Your task to perform on an android device: turn on showing notifications on the lock screen Image 0: 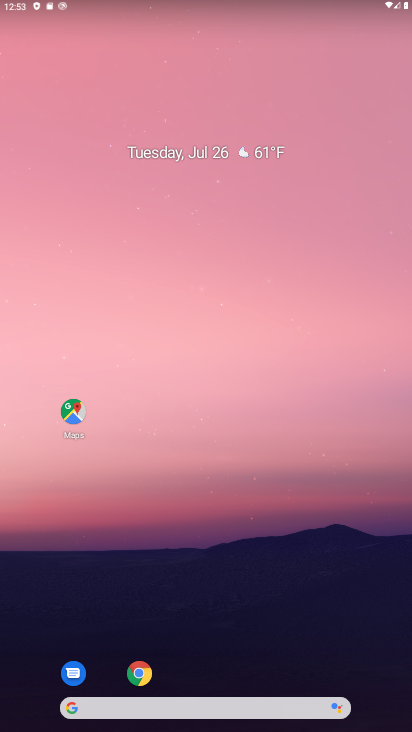
Step 0: drag from (222, 655) to (215, 255)
Your task to perform on an android device: turn on showing notifications on the lock screen Image 1: 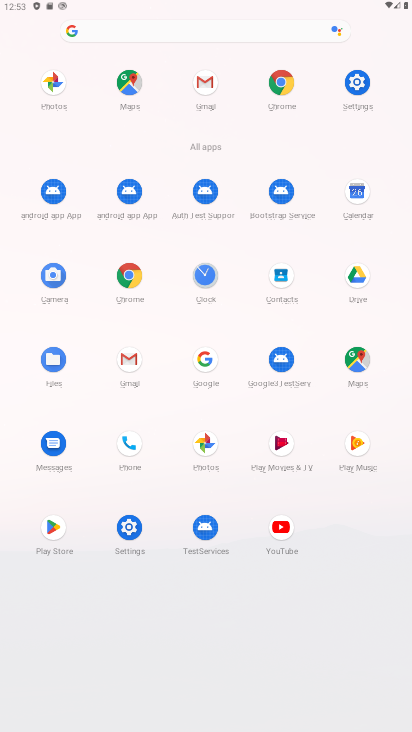
Step 1: click (361, 87)
Your task to perform on an android device: turn on showing notifications on the lock screen Image 2: 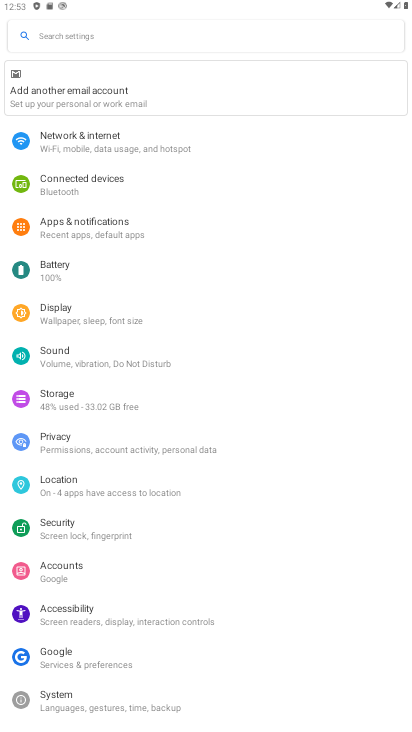
Step 2: click (87, 226)
Your task to perform on an android device: turn on showing notifications on the lock screen Image 3: 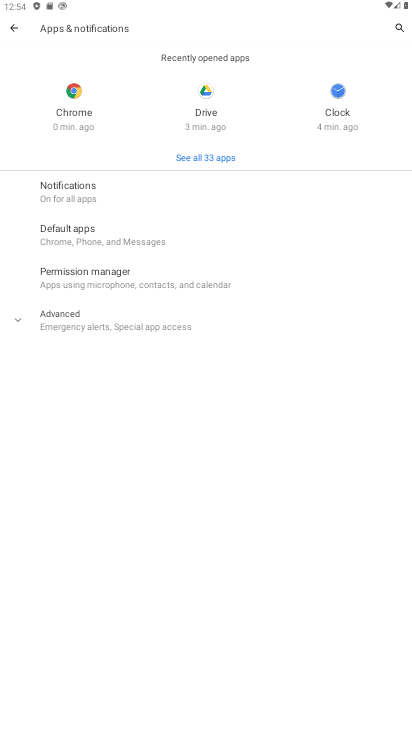
Step 3: click (96, 184)
Your task to perform on an android device: turn on showing notifications on the lock screen Image 4: 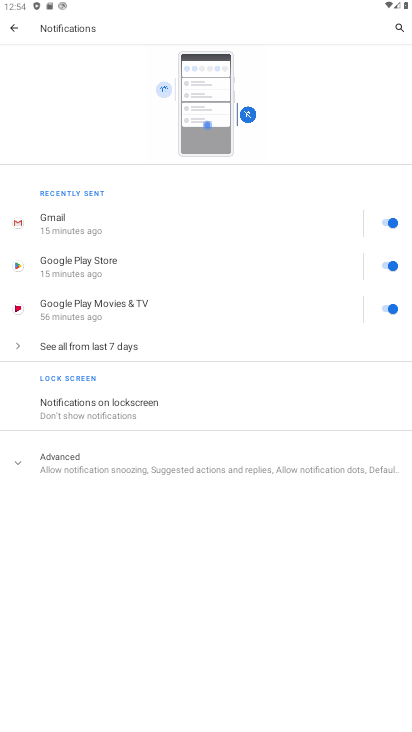
Step 4: click (125, 397)
Your task to perform on an android device: turn on showing notifications on the lock screen Image 5: 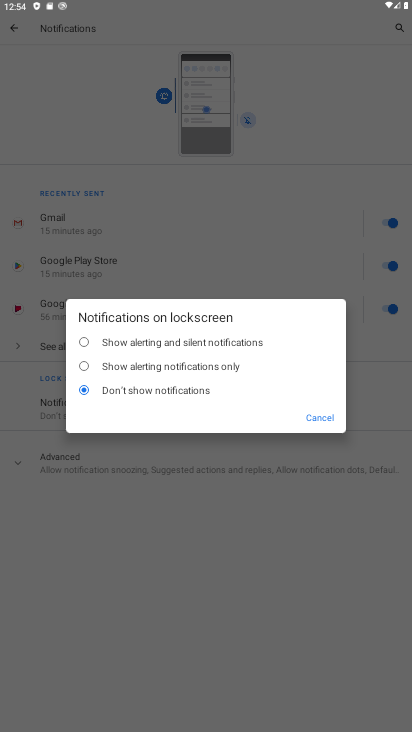
Step 5: click (177, 333)
Your task to perform on an android device: turn on showing notifications on the lock screen Image 6: 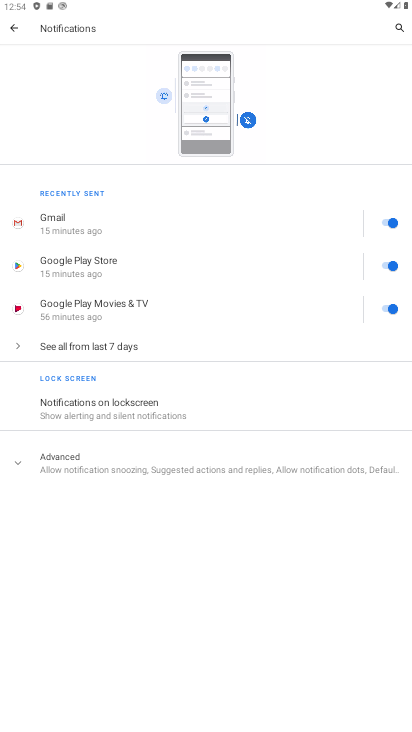
Step 6: task complete